Your task to perform on an android device: Go to Google maps Image 0: 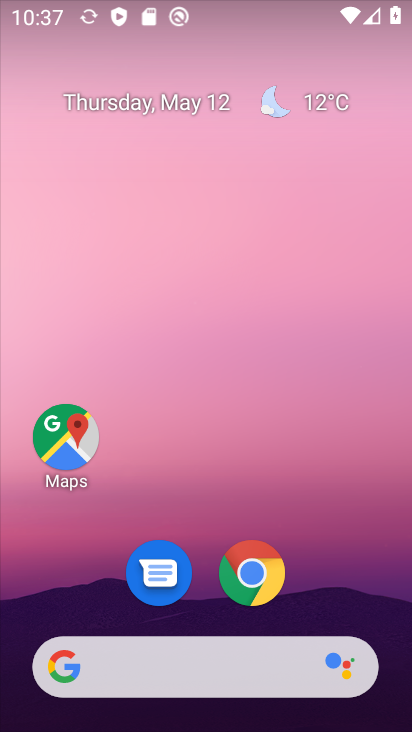
Step 0: click (61, 435)
Your task to perform on an android device: Go to Google maps Image 1: 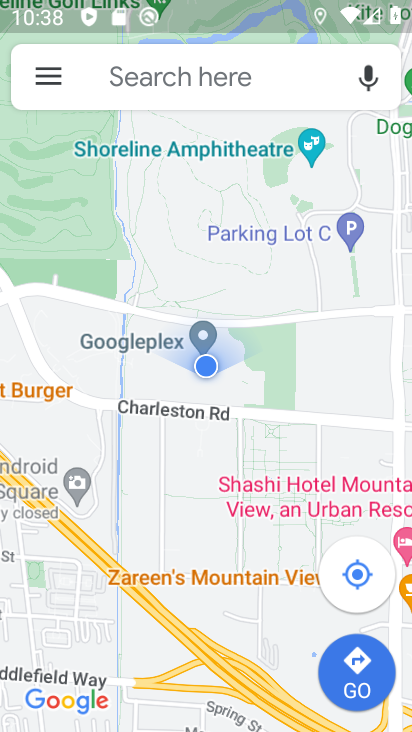
Step 1: task complete